Your task to perform on an android device: move an email to a new category in the gmail app Image 0: 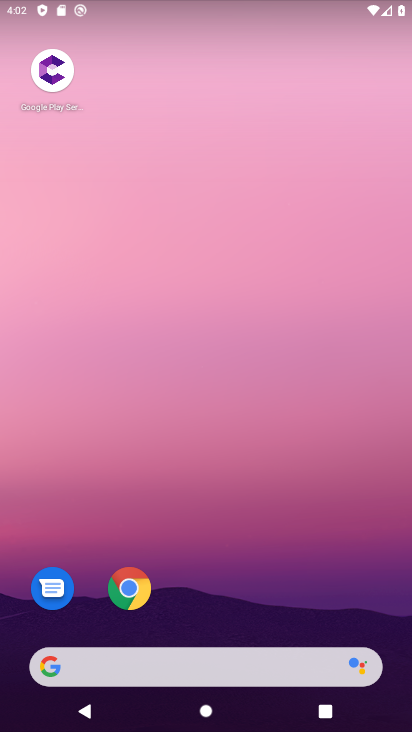
Step 0: drag from (230, 610) to (232, 40)
Your task to perform on an android device: move an email to a new category in the gmail app Image 1: 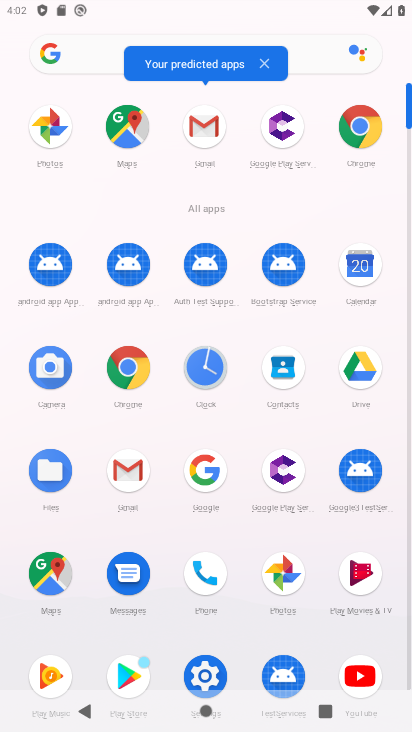
Step 1: click (127, 471)
Your task to perform on an android device: move an email to a new category in the gmail app Image 2: 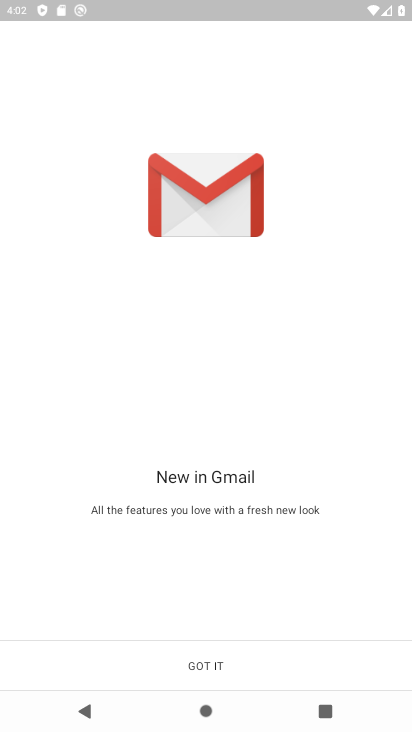
Step 2: click (214, 663)
Your task to perform on an android device: move an email to a new category in the gmail app Image 3: 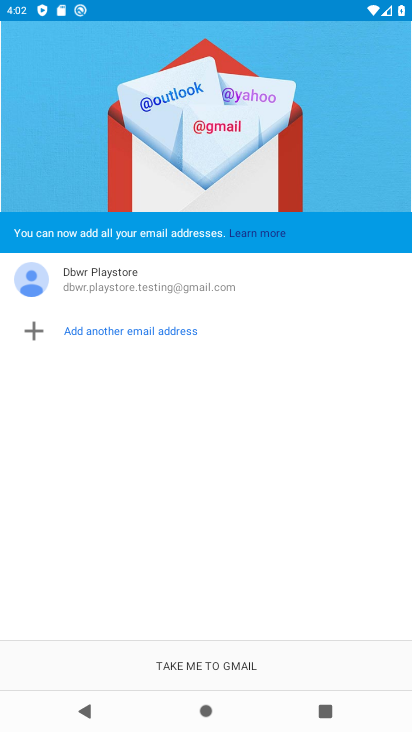
Step 3: click (212, 658)
Your task to perform on an android device: move an email to a new category in the gmail app Image 4: 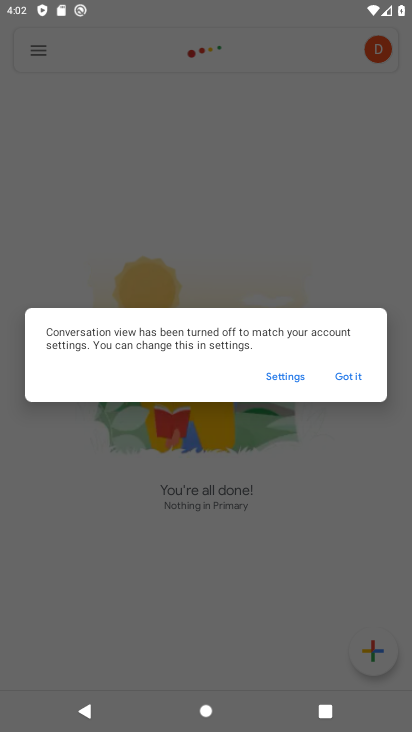
Step 4: click (343, 372)
Your task to perform on an android device: move an email to a new category in the gmail app Image 5: 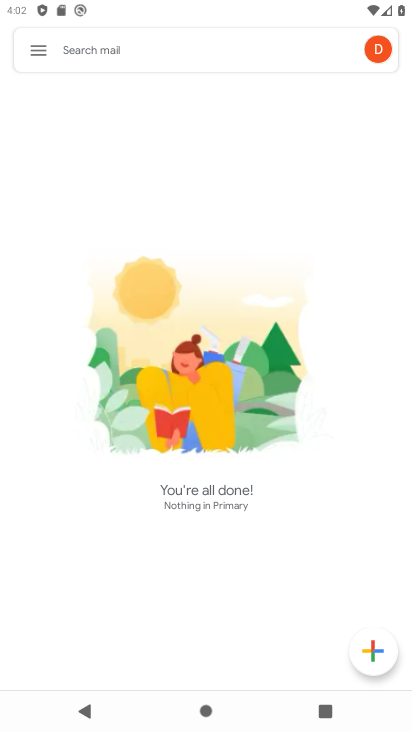
Step 5: task complete